Your task to perform on an android device: turn on improve location accuracy Image 0: 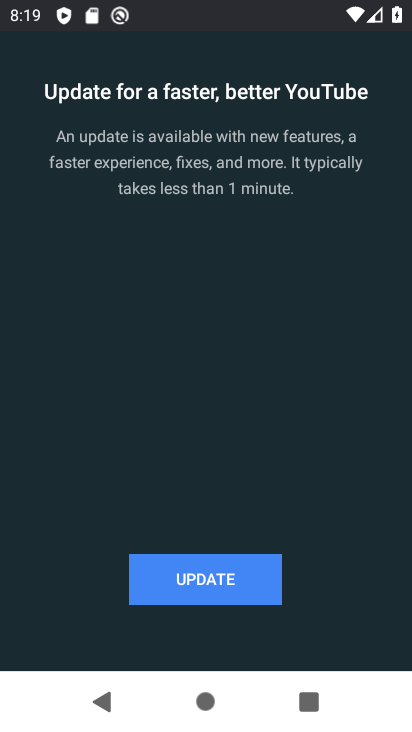
Step 0: press home button
Your task to perform on an android device: turn on improve location accuracy Image 1: 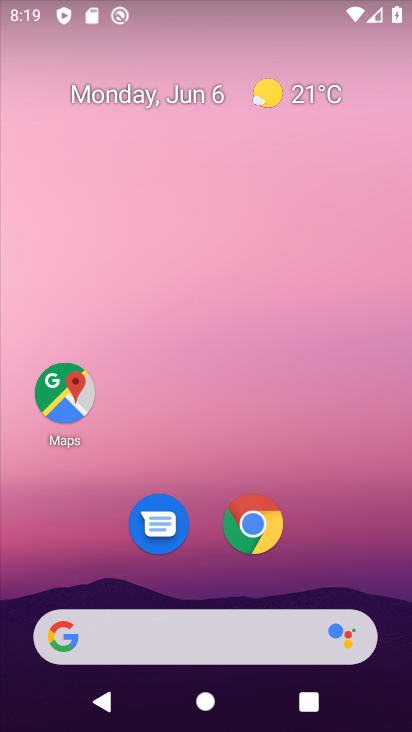
Step 1: drag from (190, 433) to (264, 21)
Your task to perform on an android device: turn on improve location accuracy Image 2: 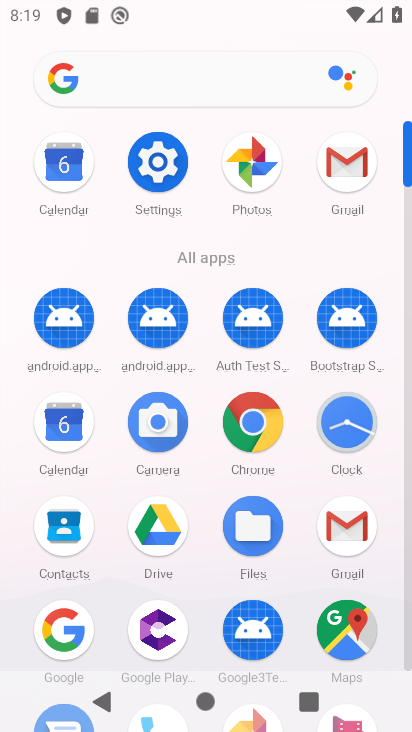
Step 2: click (151, 148)
Your task to perform on an android device: turn on improve location accuracy Image 3: 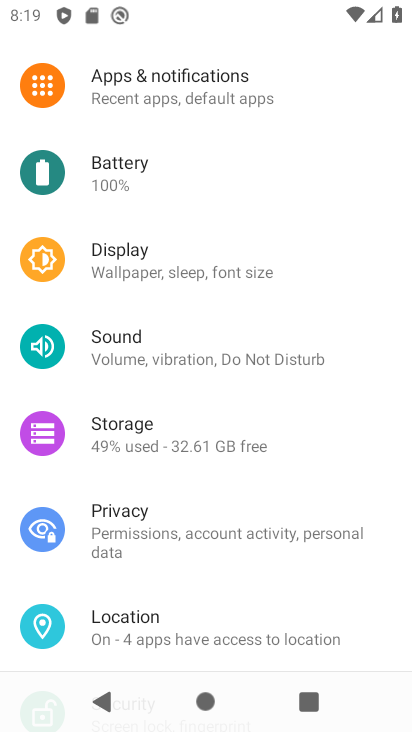
Step 3: click (186, 626)
Your task to perform on an android device: turn on improve location accuracy Image 4: 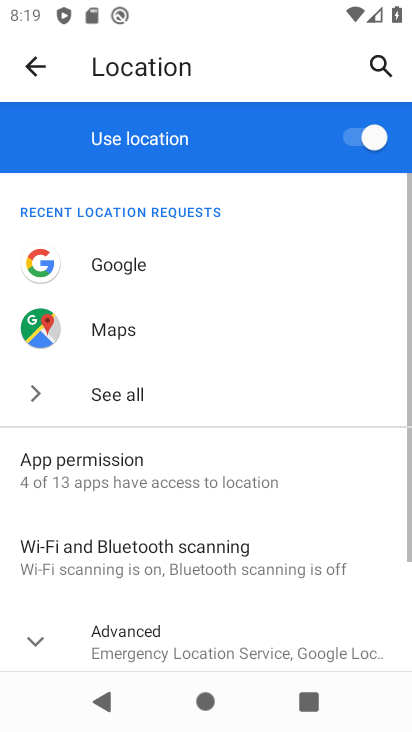
Step 4: drag from (276, 372) to (299, 136)
Your task to perform on an android device: turn on improve location accuracy Image 5: 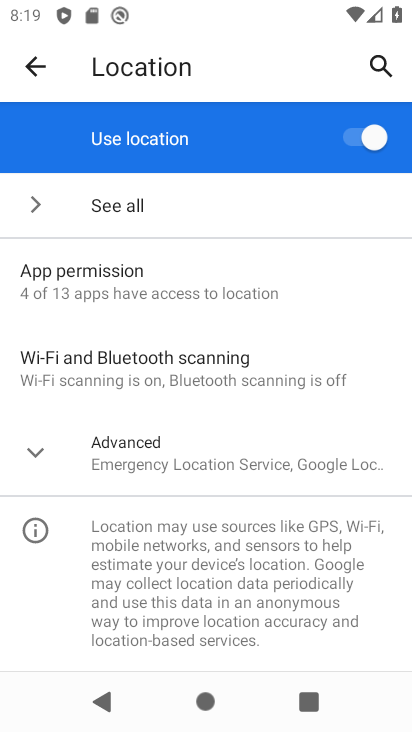
Step 5: click (29, 448)
Your task to perform on an android device: turn on improve location accuracy Image 6: 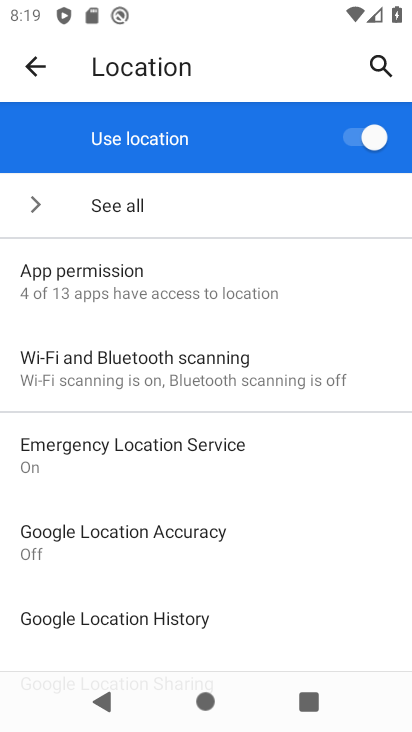
Step 6: click (170, 551)
Your task to perform on an android device: turn on improve location accuracy Image 7: 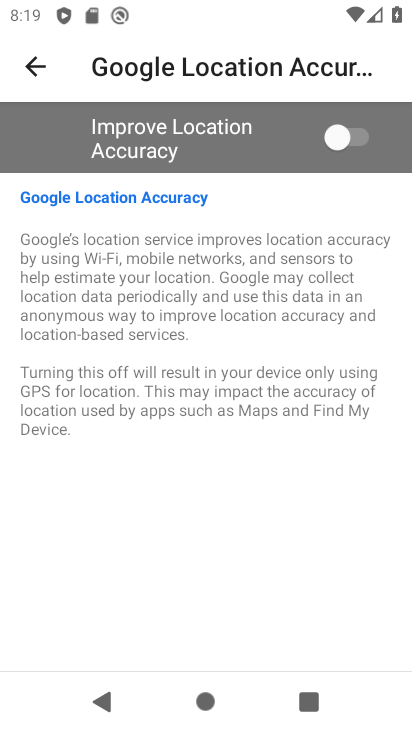
Step 7: click (345, 141)
Your task to perform on an android device: turn on improve location accuracy Image 8: 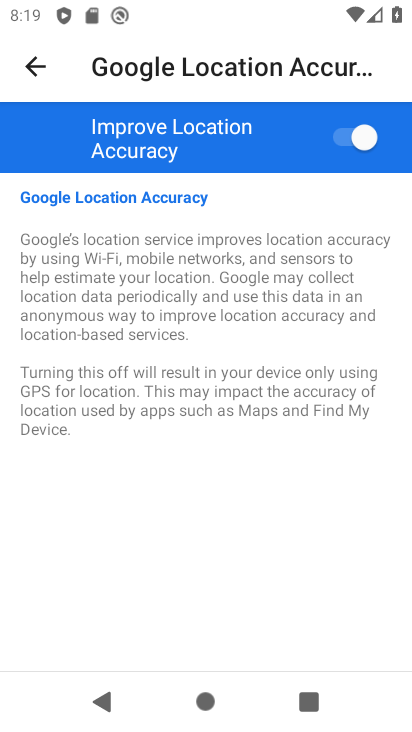
Step 8: task complete